Your task to perform on an android device: find which apps use the phone's location Image 0: 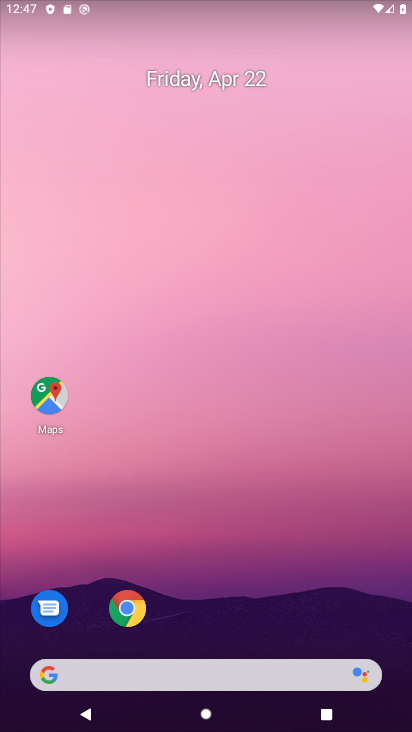
Step 0: drag from (356, 623) to (299, 159)
Your task to perform on an android device: find which apps use the phone's location Image 1: 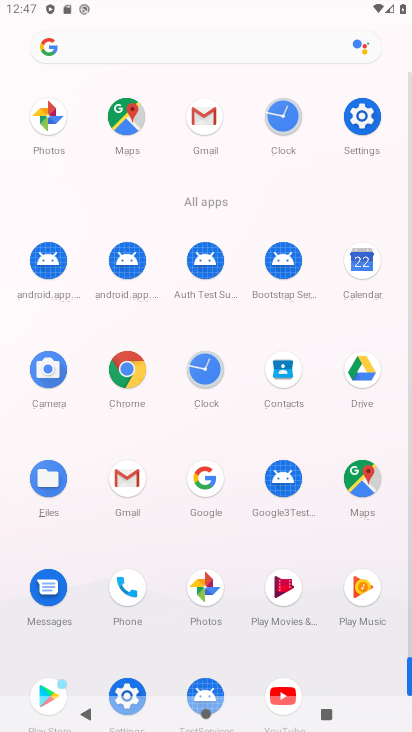
Step 1: click (410, 645)
Your task to perform on an android device: find which apps use the phone's location Image 2: 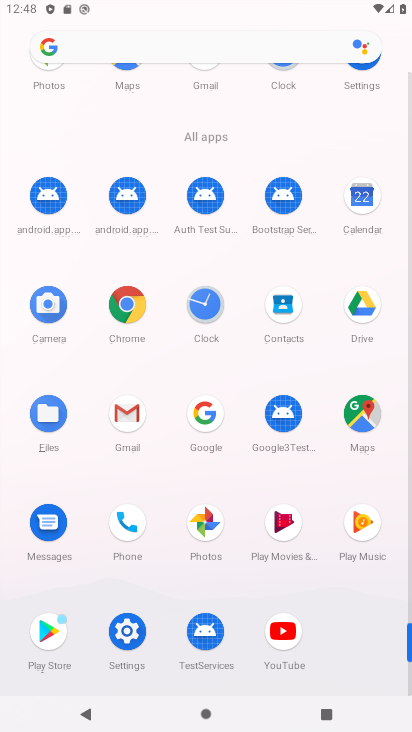
Step 2: click (123, 635)
Your task to perform on an android device: find which apps use the phone's location Image 3: 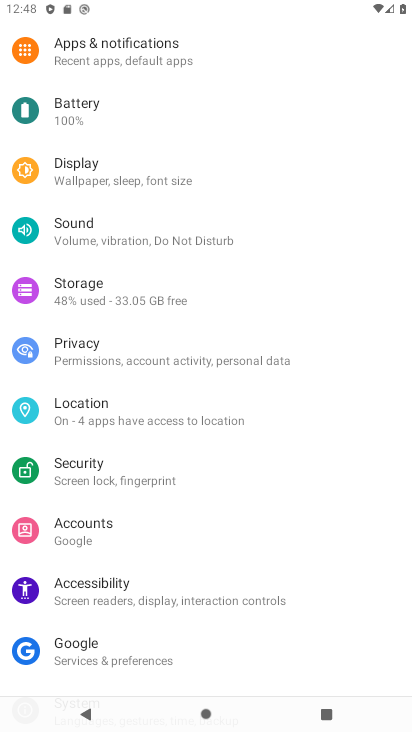
Step 3: click (93, 411)
Your task to perform on an android device: find which apps use the phone's location Image 4: 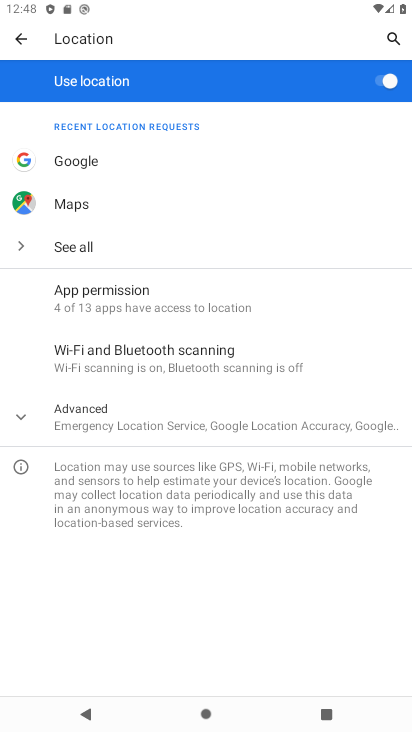
Step 4: click (90, 308)
Your task to perform on an android device: find which apps use the phone's location Image 5: 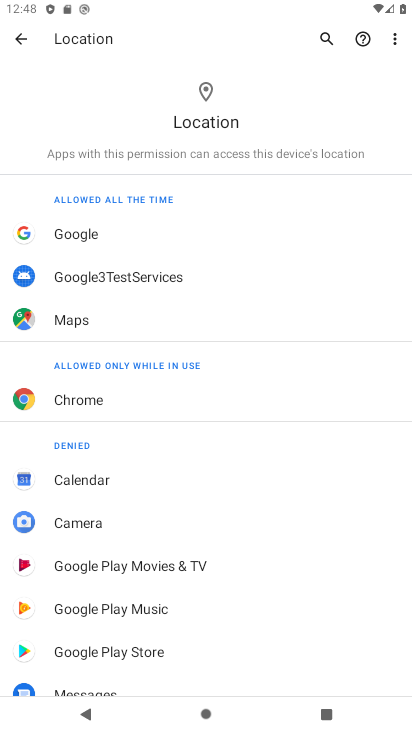
Step 5: drag from (234, 577) to (244, 221)
Your task to perform on an android device: find which apps use the phone's location Image 6: 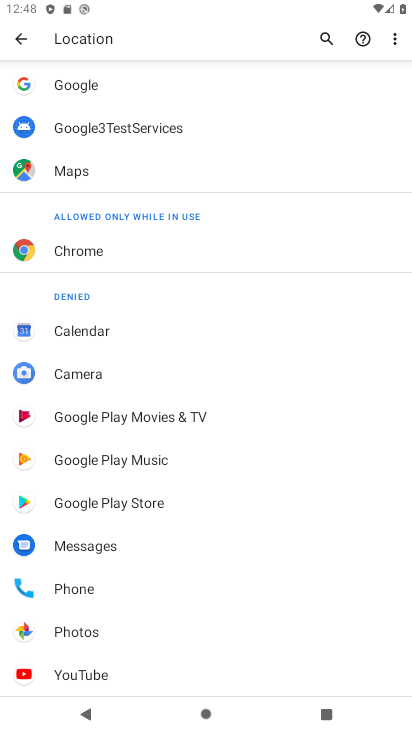
Step 6: click (71, 672)
Your task to perform on an android device: find which apps use the phone's location Image 7: 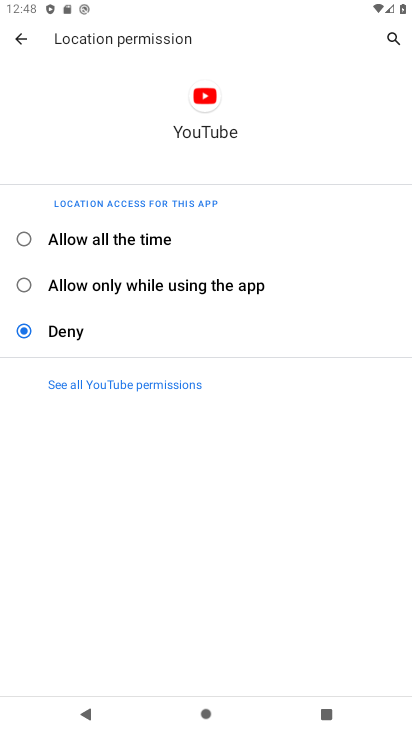
Step 7: task complete